Your task to perform on an android device: turn off smart reply in the gmail app Image 0: 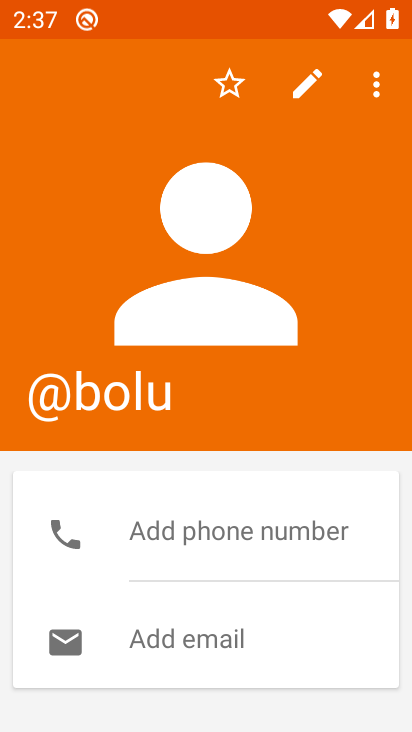
Step 0: press home button
Your task to perform on an android device: turn off smart reply in the gmail app Image 1: 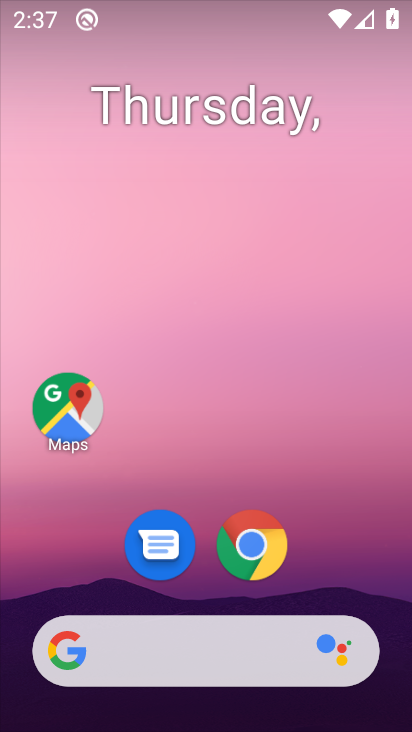
Step 1: drag from (243, 616) to (307, 330)
Your task to perform on an android device: turn off smart reply in the gmail app Image 2: 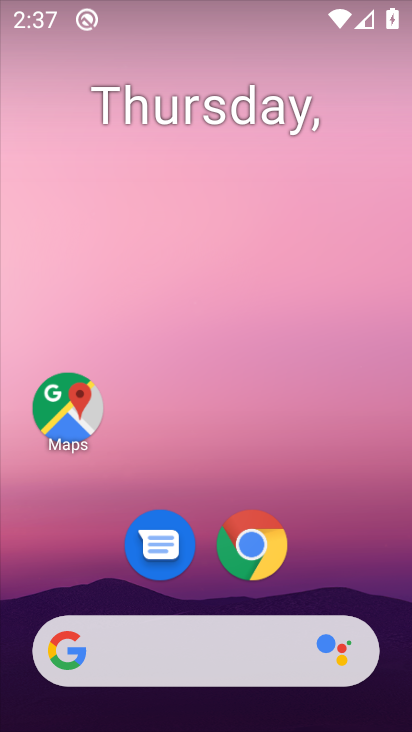
Step 2: drag from (281, 615) to (372, 179)
Your task to perform on an android device: turn off smart reply in the gmail app Image 3: 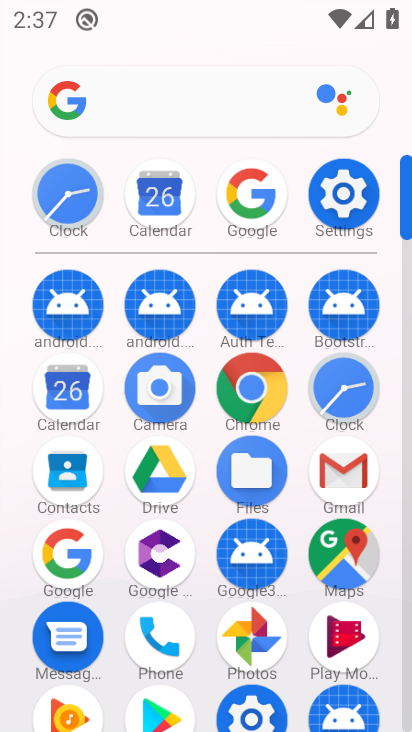
Step 3: click (330, 475)
Your task to perform on an android device: turn off smart reply in the gmail app Image 4: 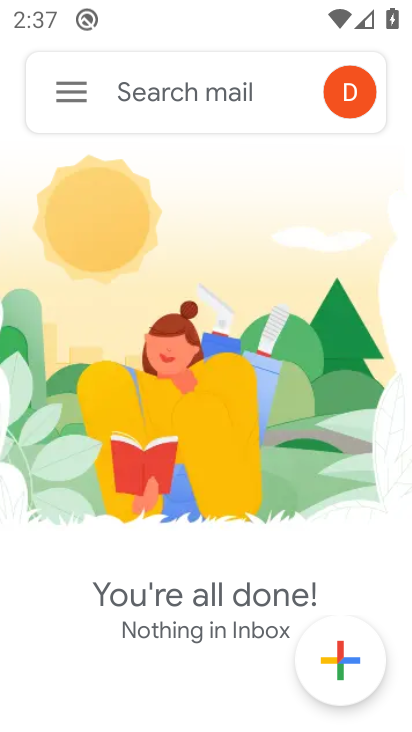
Step 4: click (71, 90)
Your task to perform on an android device: turn off smart reply in the gmail app Image 5: 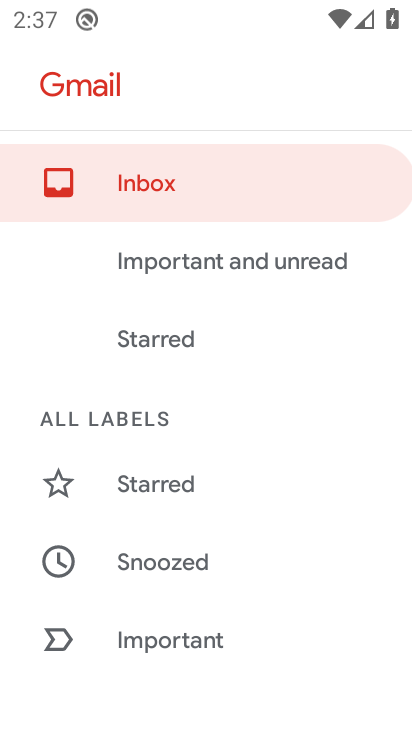
Step 5: drag from (135, 660) to (205, 84)
Your task to perform on an android device: turn off smart reply in the gmail app Image 6: 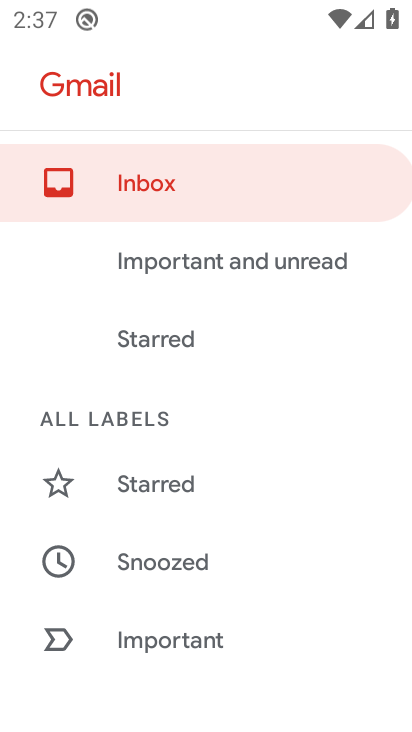
Step 6: drag from (162, 680) to (251, 339)
Your task to perform on an android device: turn off smart reply in the gmail app Image 7: 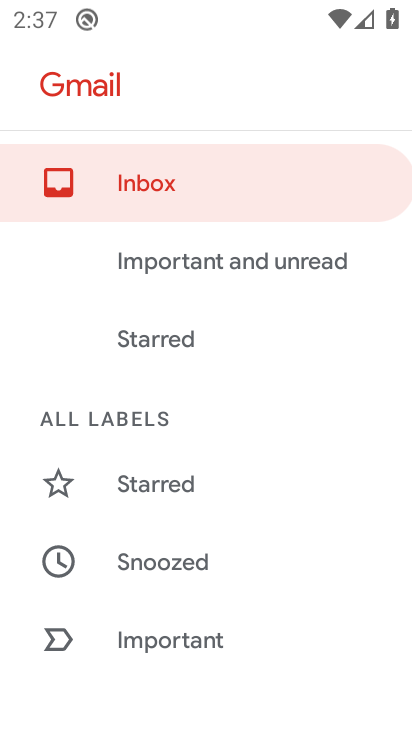
Step 7: drag from (209, 652) to (255, 189)
Your task to perform on an android device: turn off smart reply in the gmail app Image 8: 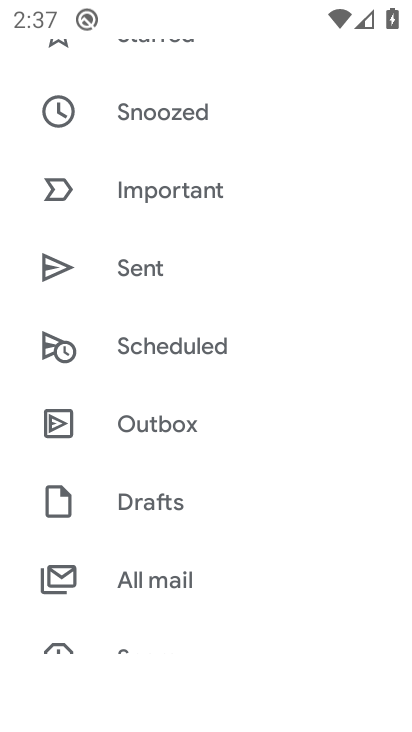
Step 8: drag from (184, 613) to (243, 123)
Your task to perform on an android device: turn off smart reply in the gmail app Image 9: 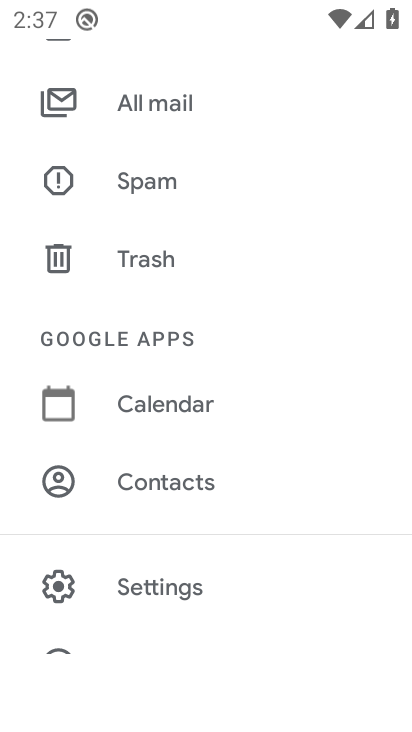
Step 9: click (150, 588)
Your task to perform on an android device: turn off smart reply in the gmail app Image 10: 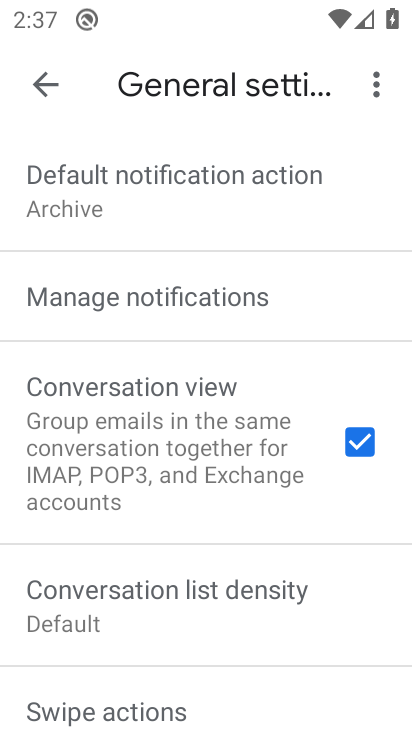
Step 10: drag from (156, 667) to (239, 152)
Your task to perform on an android device: turn off smart reply in the gmail app Image 11: 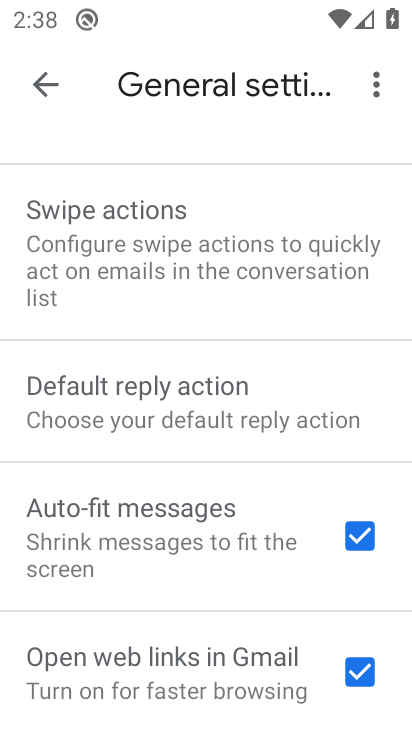
Step 11: drag from (233, 664) to (314, 239)
Your task to perform on an android device: turn off smart reply in the gmail app Image 12: 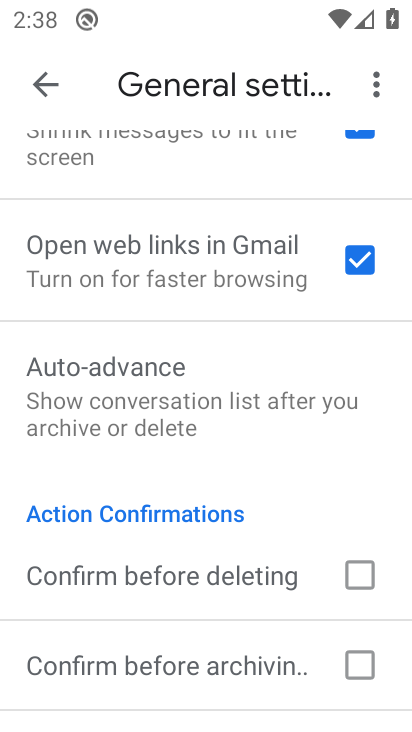
Step 12: drag from (277, 643) to (330, 207)
Your task to perform on an android device: turn off smart reply in the gmail app Image 13: 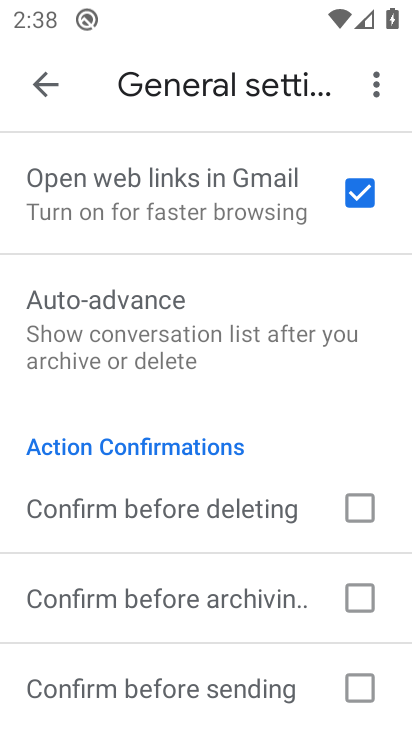
Step 13: click (39, 93)
Your task to perform on an android device: turn off smart reply in the gmail app Image 14: 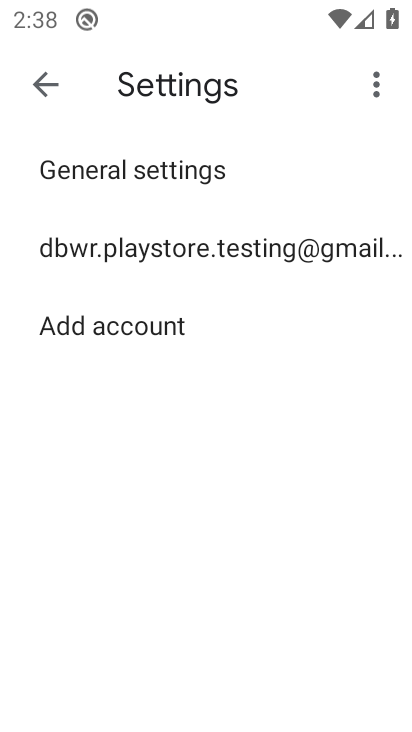
Step 14: click (84, 247)
Your task to perform on an android device: turn off smart reply in the gmail app Image 15: 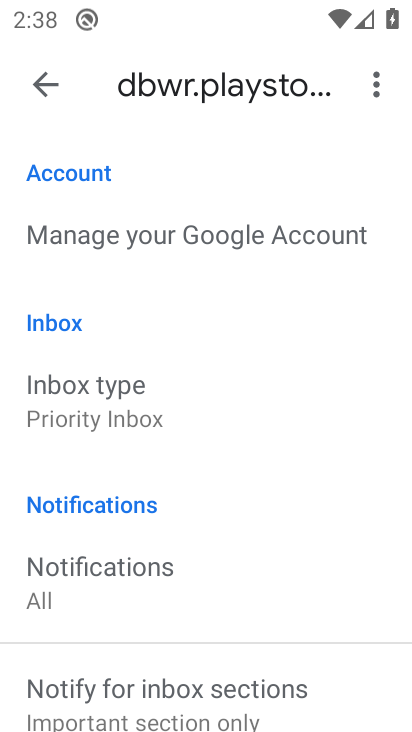
Step 15: task complete